Your task to perform on an android device: delete location history Image 0: 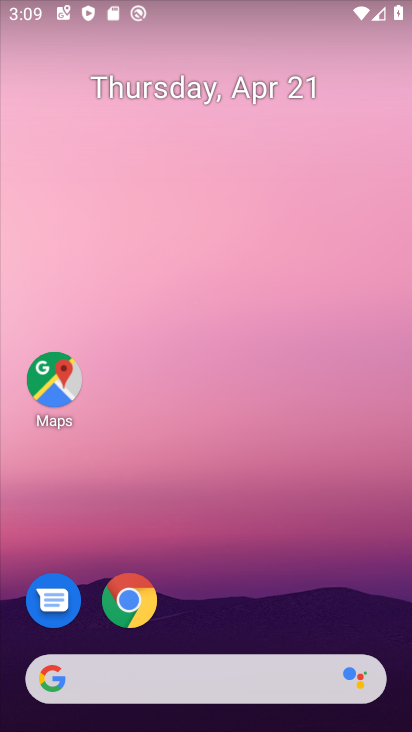
Step 0: click (54, 380)
Your task to perform on an android device: delete location history Image 1: 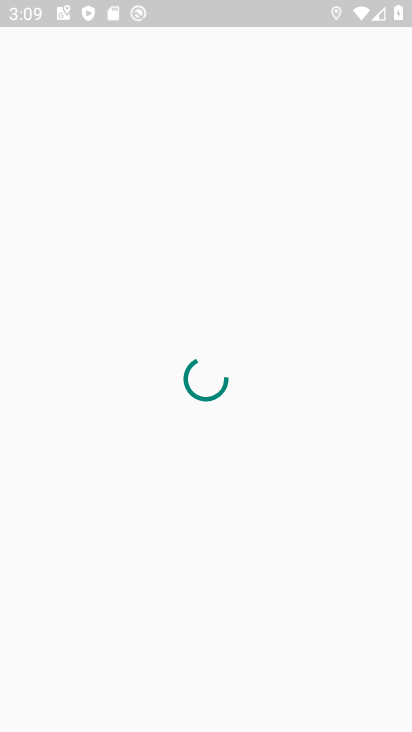
Step 1: click (320, 58)
Your task to perform on an android device: delete location history Image 2: 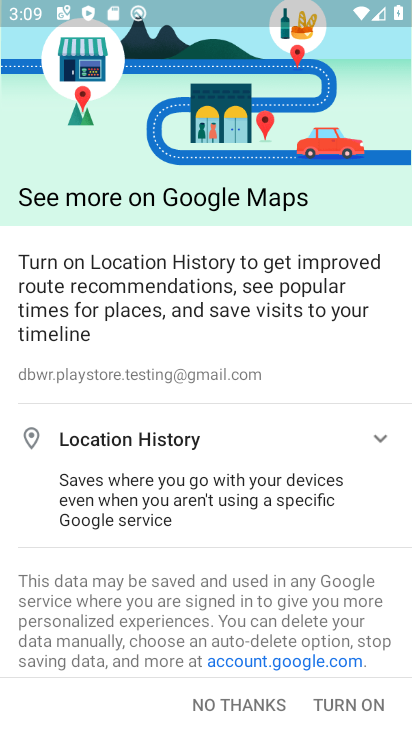
Step 2: click (232, 707)
Your task to perform on an android device: delete location history Image 3: 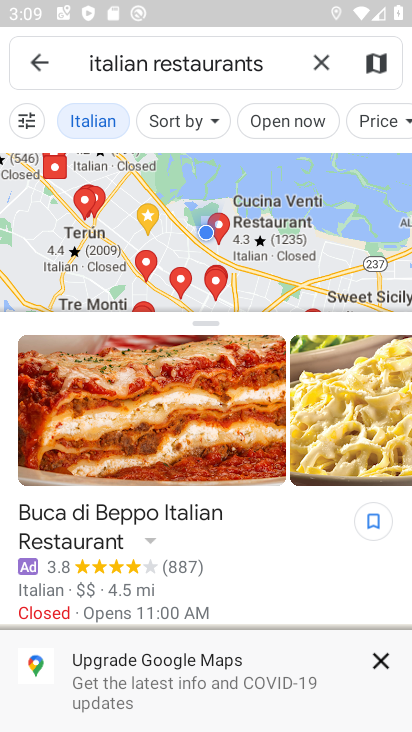
Step 3: click (319, 64)
Your task to perform on an android device: delete location history Image 4: 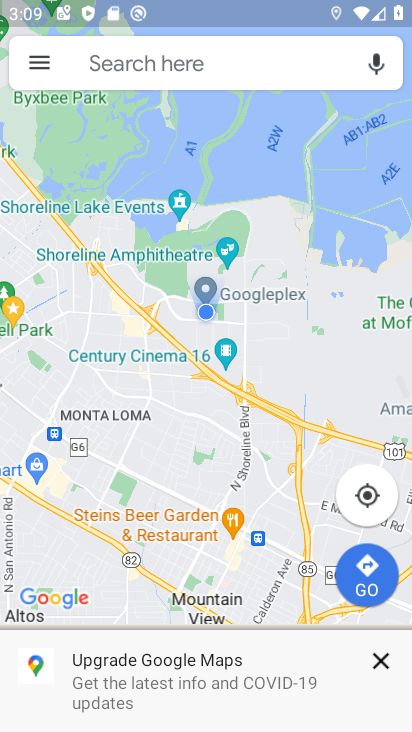
Step 4: click (41, 60)
Your task to perform on an android device: delete location history Image 5: 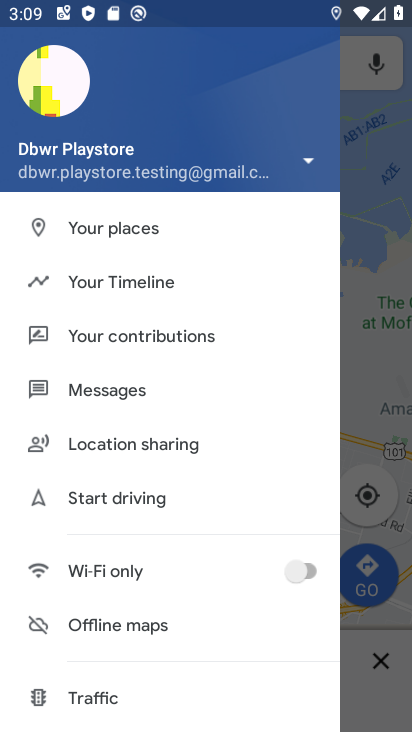
Step 5: drag from (143, 483) to (207, 314)
Your task to perform on an android device: delete location history Image 6: 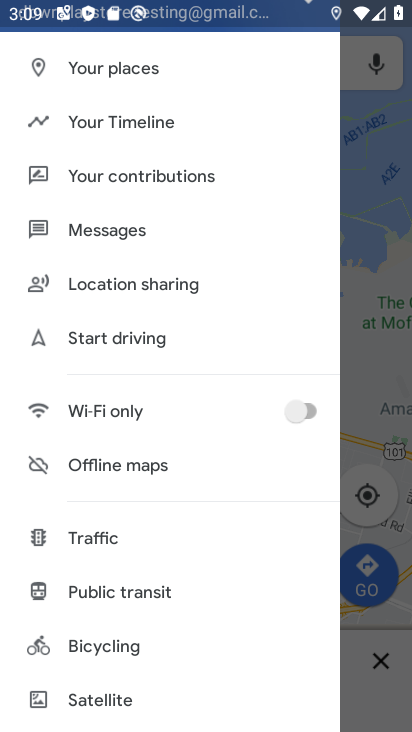
Step 6: drag from (150, 534) to (198, 436)
Your task to perform on an android device: delete location history Image 7: 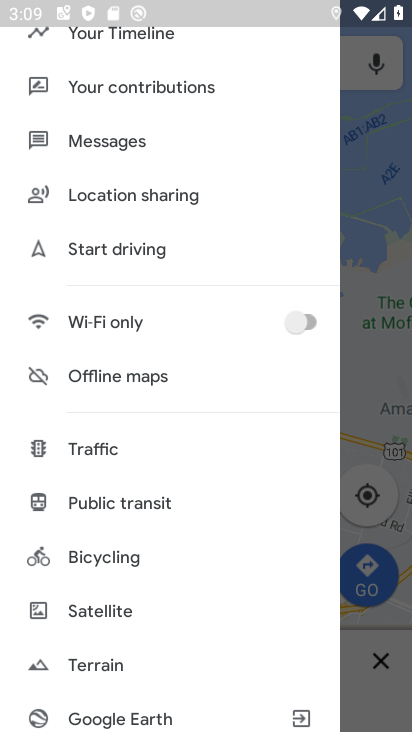
Step 7: drag from (178, 552) to (223, 446)
Your task to perform on an android device: delete location history Image 8: 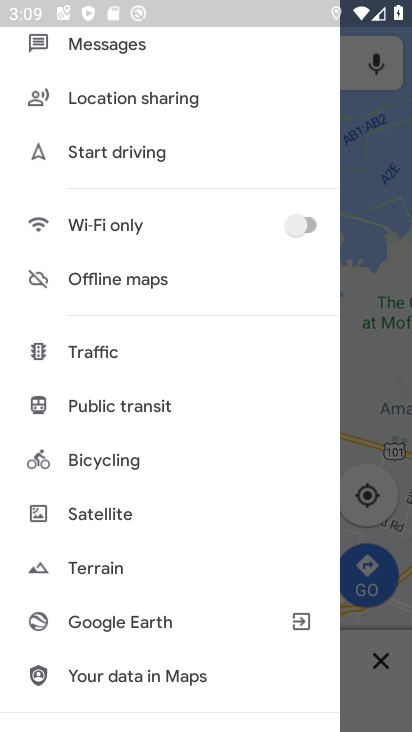
Step 8: drag from (161, 579) to (232, 471)
Your task to perform on an android device: delete location history Image 9: 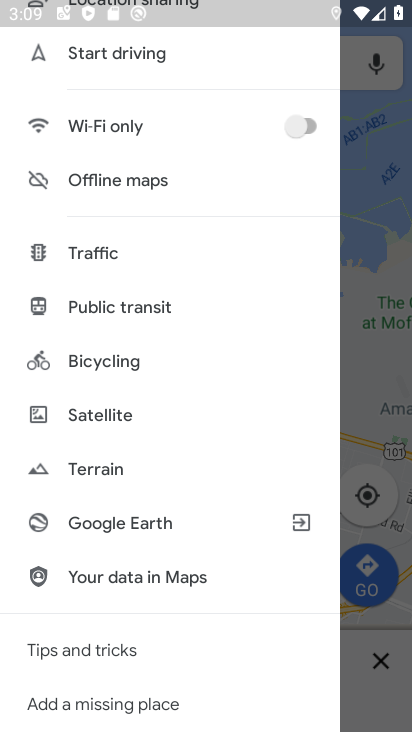
Step 9: drag from (164, 480) to (238, 353)
Your task to perform on an android device: delete location history Image 10: 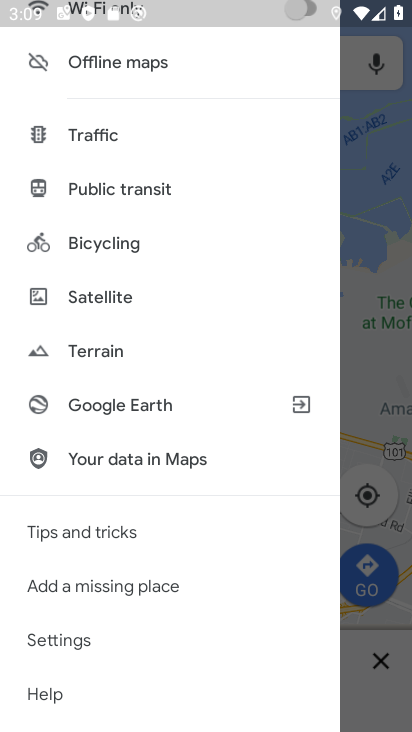
Step 10: click (82, 638)
Your task to perform on an android device: delete location history Image 11: 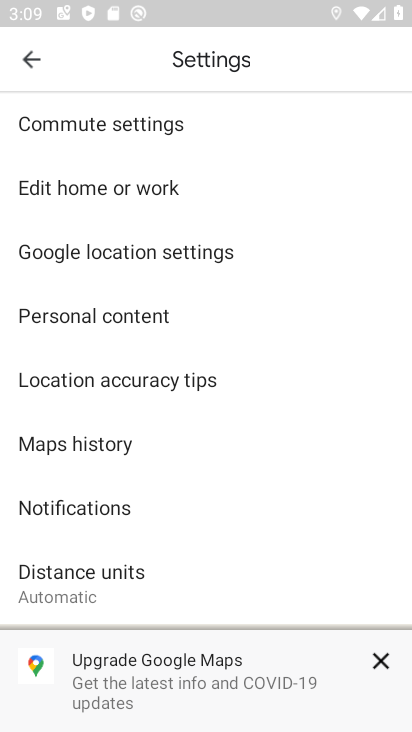
Step 11: click (145, 319)
Your task to perform on an android device: delete location history Image 12: 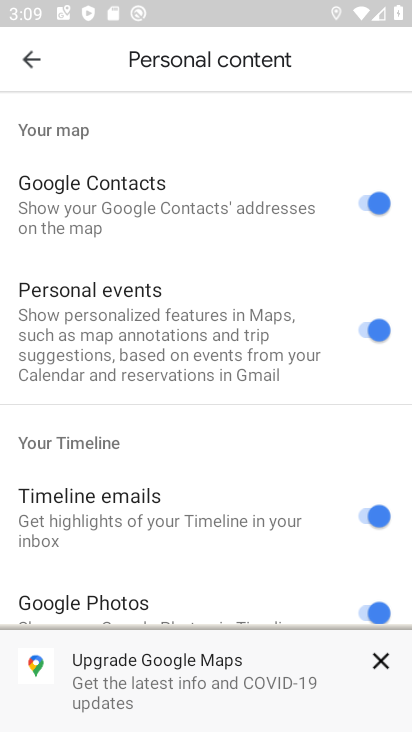
Step 12: drag from (151, 466) to (251, 326)
Your task to perform on an android device: delete location history Image 13: 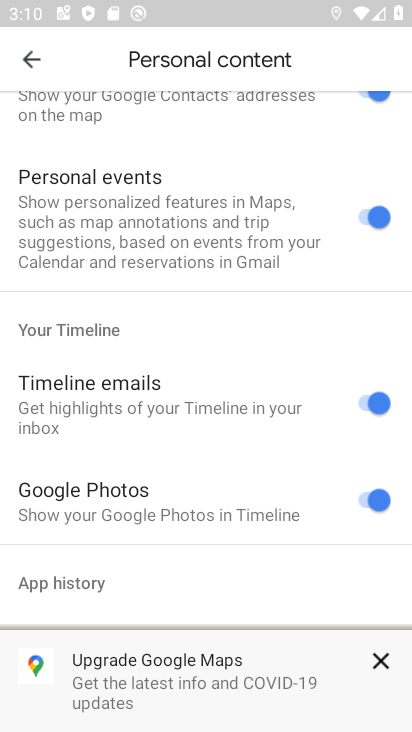
Step 13: drag from (149, 482) to (242, 336)
Your task to perform on an android device: delete location history Image 14: 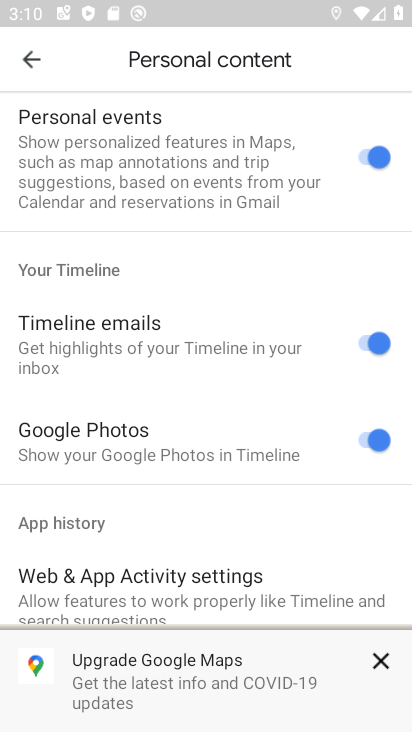
Step 14: drag from (134, 535) to (236, 379)
Your task to perform on an android device: delete location history Image 15: 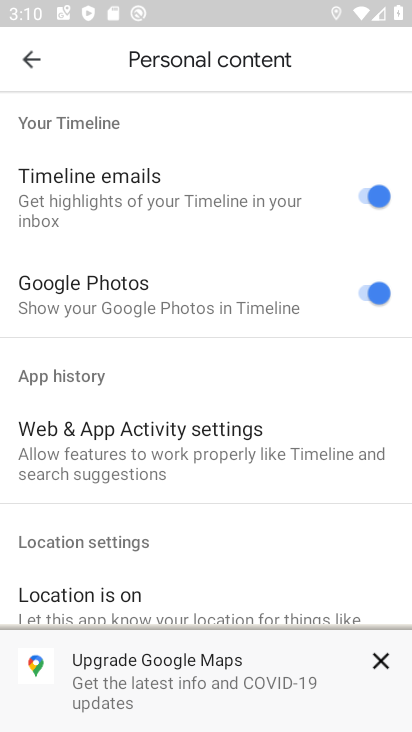
Step 15: drag from (194, 510) to (259, 376)
Your task to perform on an android device: delete location history Image 16: 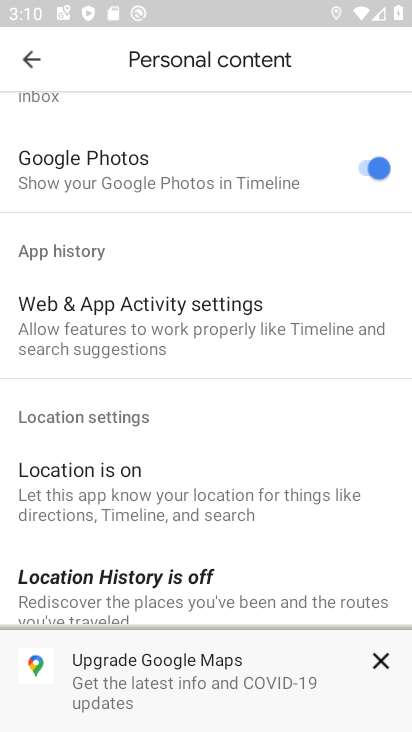
Step 16: drag from (167, 544) to (291, 373)
Your task to perform on an android device: delete location history Image 17: 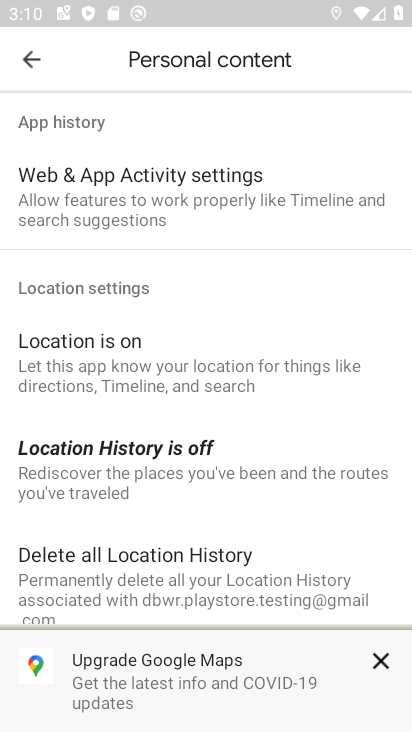
Step 17: drag from (192, 534) to (335, 359)
Your task to perform on an android device: delete location history Image 18: 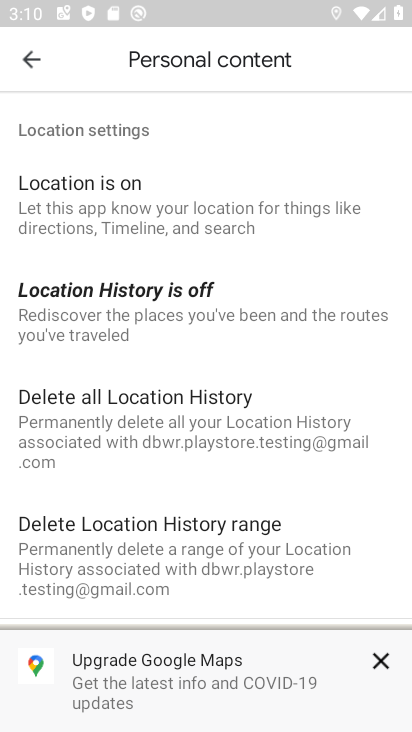
Step 18: click (235, 399)
Your task to perform on an android device: delete location history Image 19: 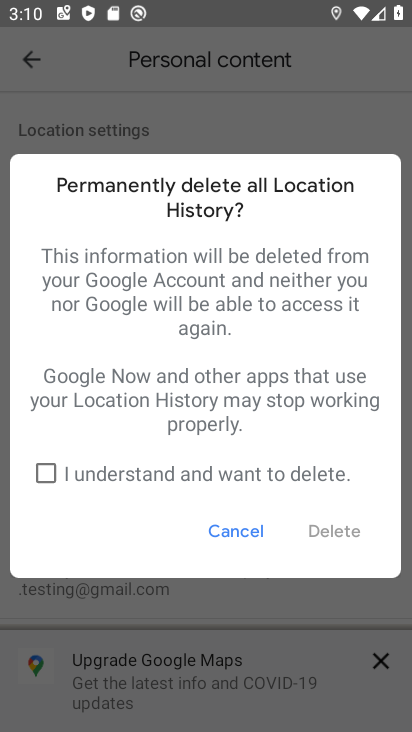
Step 19: click (53, 470)
Your task to perform on an android device: delete location history Image 20: 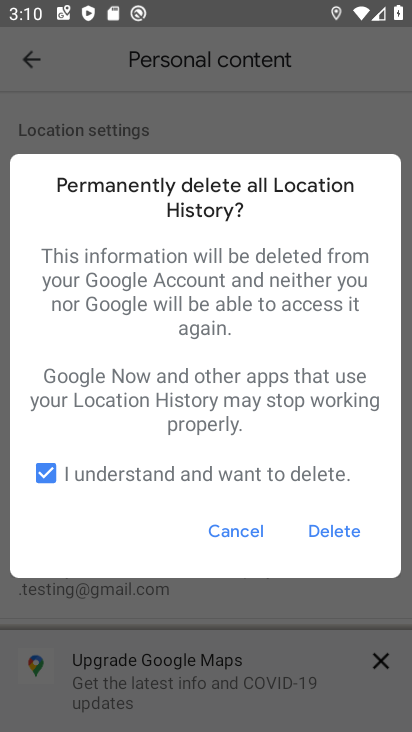
Step 20: click (341, 529)
Your task to perform on an android device: delete location history Image 21: 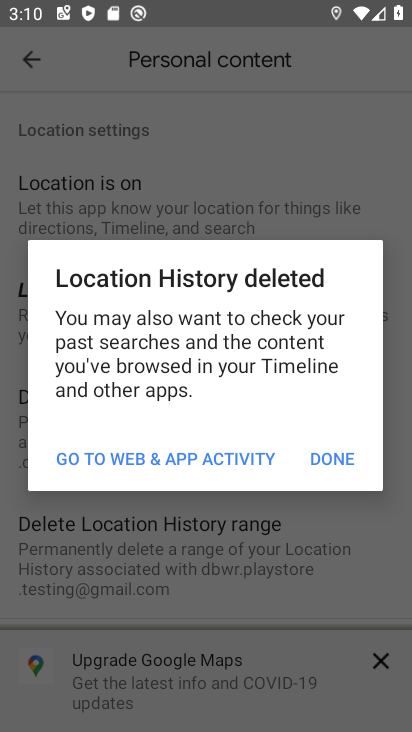
Step 21: click (338, 461)
Your task to perform on an android device: delete location history Image 22: 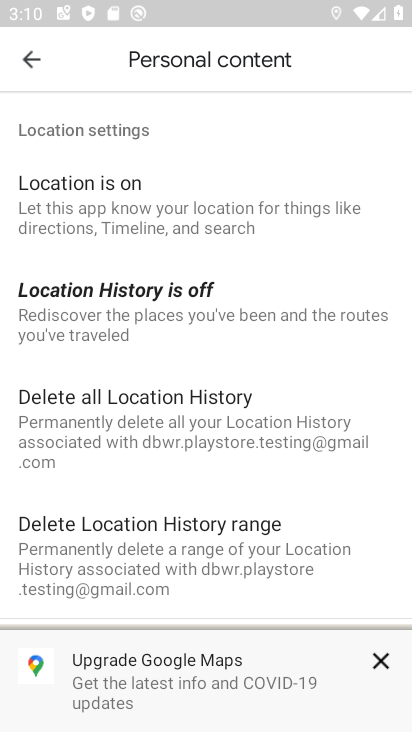
Step 22: task complete